Your task to perform on an android device: How do I get to the nearest Subway? Image 0: 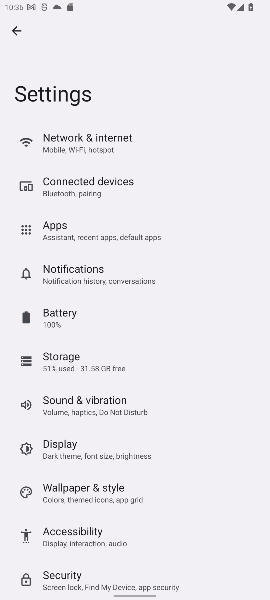
Step 0: press home button
Your task to perform on an android device: How do I get to the nearest Subway? Image 1: 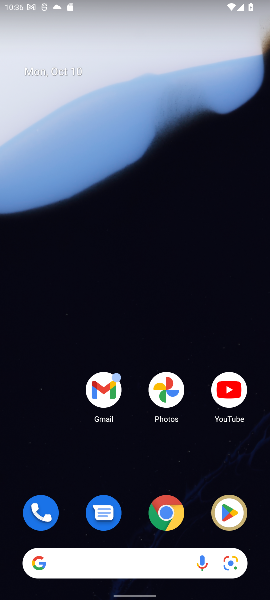
Step 1: click (120, 558)
Your task to perform on an android device: How do I get to the nearest Subway? Image 2: 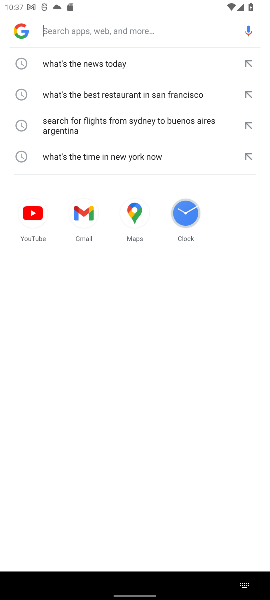
Step 2: type "How do I get to the nearest Subway?"
Your task to perform on an android device: How do I get to the nearest Subway? Image 3: 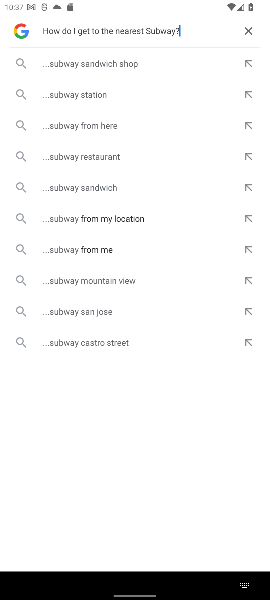
Step 3: click (91, 120)
Your task to perform on an android device: How do I get to the nearest Subway? Image 4: 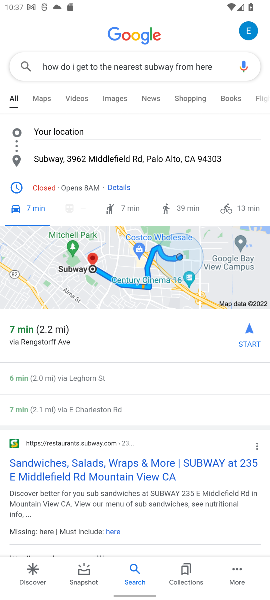
Step 4: task complete